Your task to perform on an android device: delete location history Image 0: 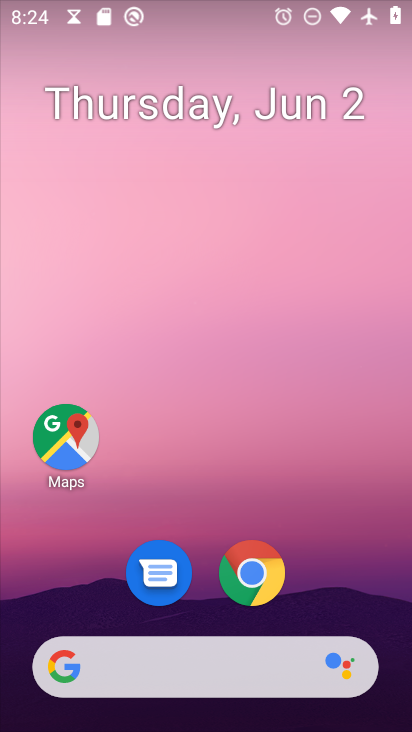
Step 0: click (58, 450)
Your task to perform on an android device: delete location history Image 1: 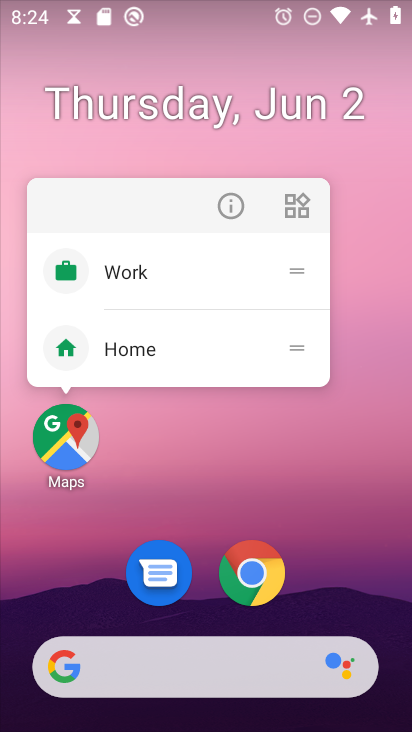
Step 1: click (58, 451)
Your task to perform on an android device: delete location history Image 2: 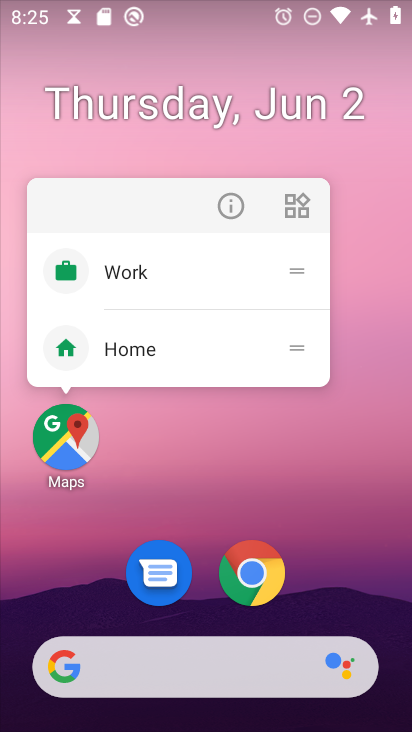
Step 2: click (61, 453)
Your task to perform on an android device: delete location history Image 3: 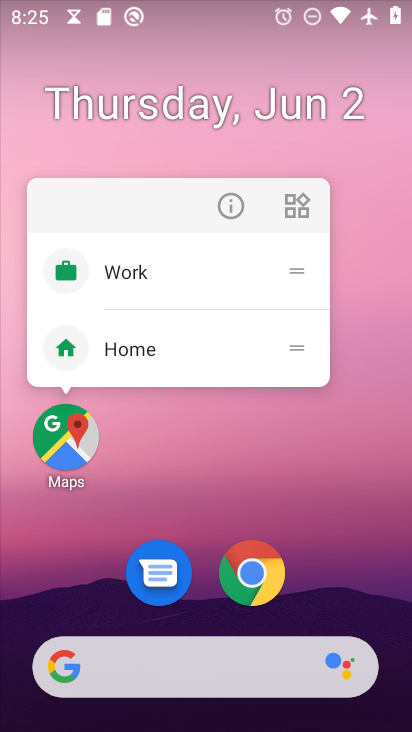
Step 3: click (55, 441)
Your task to perform on an android device: delete location history Image 4: 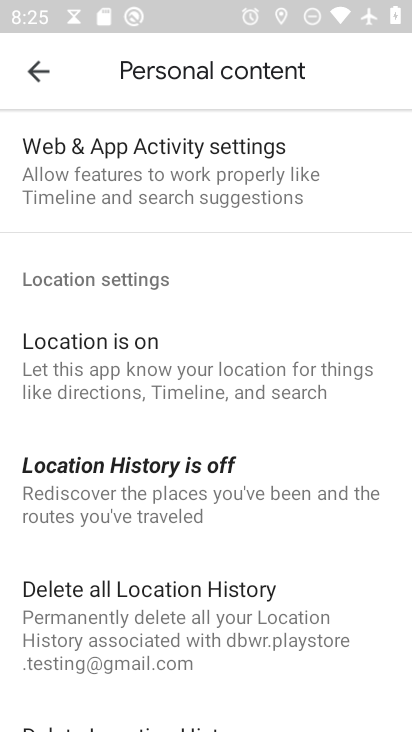
Step 4: click (174, 599)
Your task to perform on an android device: delete location history Image 5: 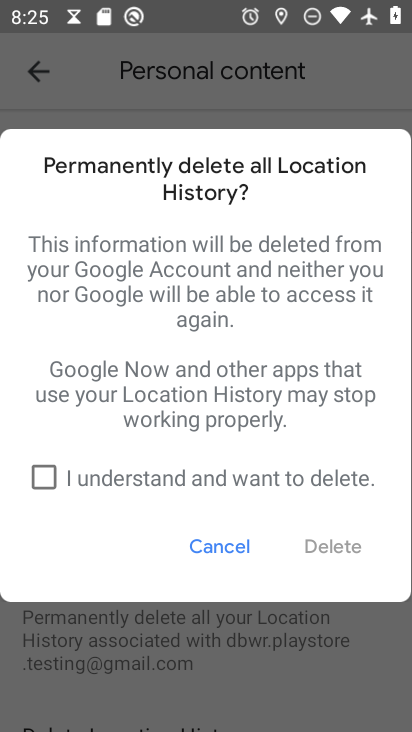
Step 5: click (41, 476)
Your task to perform on an android device: delete location history Image 6: 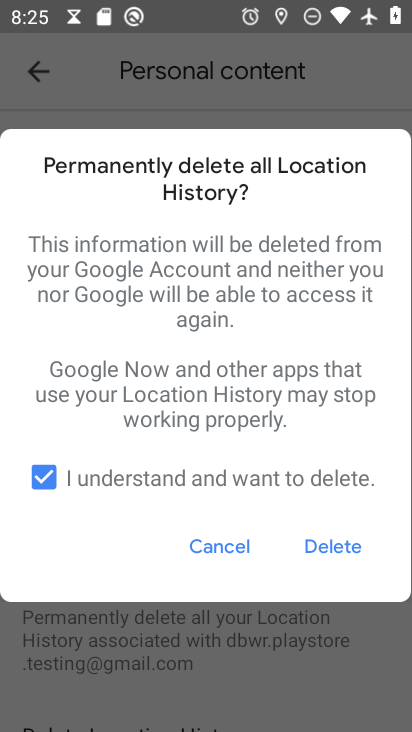
Step 6: click (335, 548)
Your task to perform on an android device: delete location history Image 7: 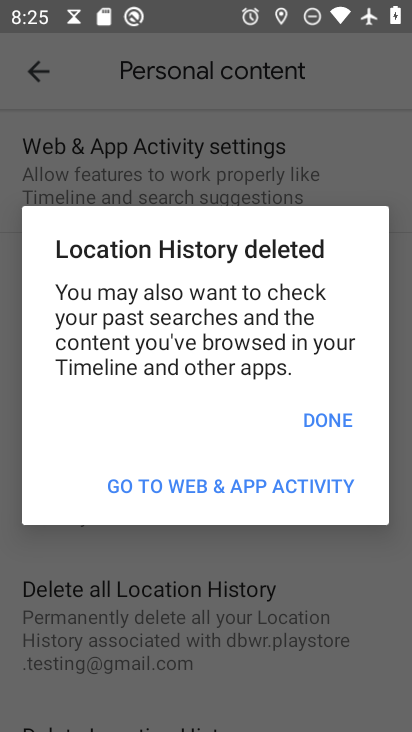
Step 7: click (335, 419)
Your task to perform on an android device: delete location history Image 8: 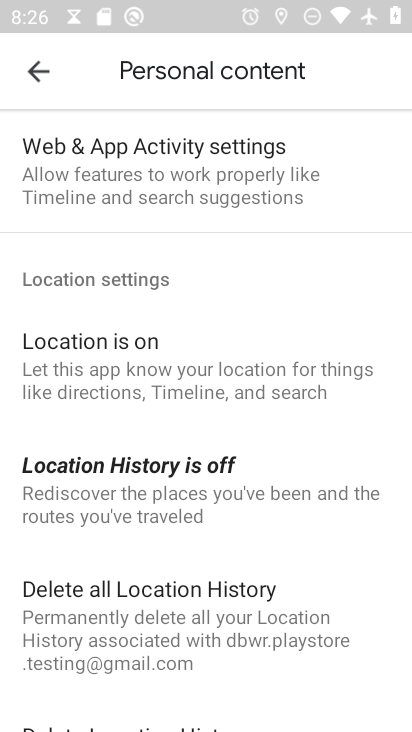
Step 8: task complete